Your task to perform on an android device: What's the weather? Image 0: 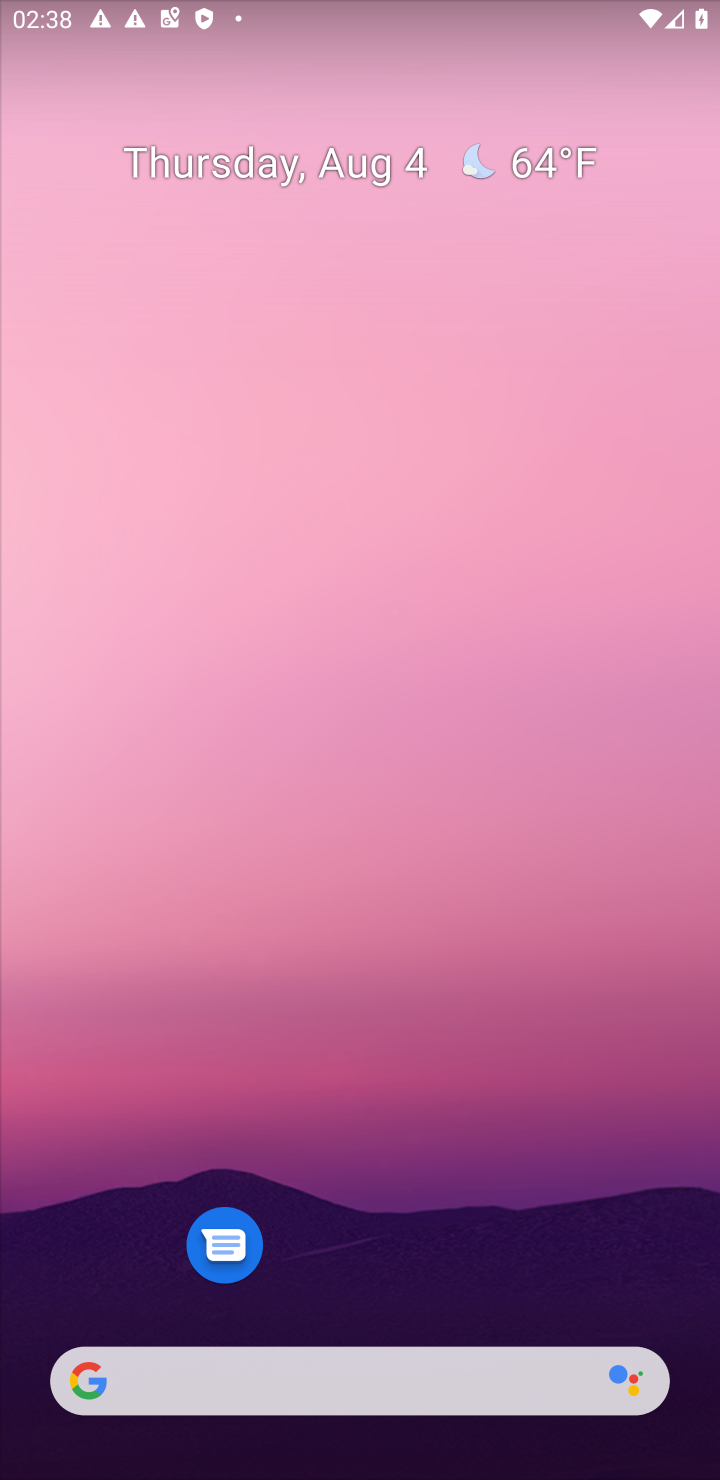
Step 0: drag from (482, 806) to (480, 238)
Your task to perform on an android device: What's the weather? Image 1: 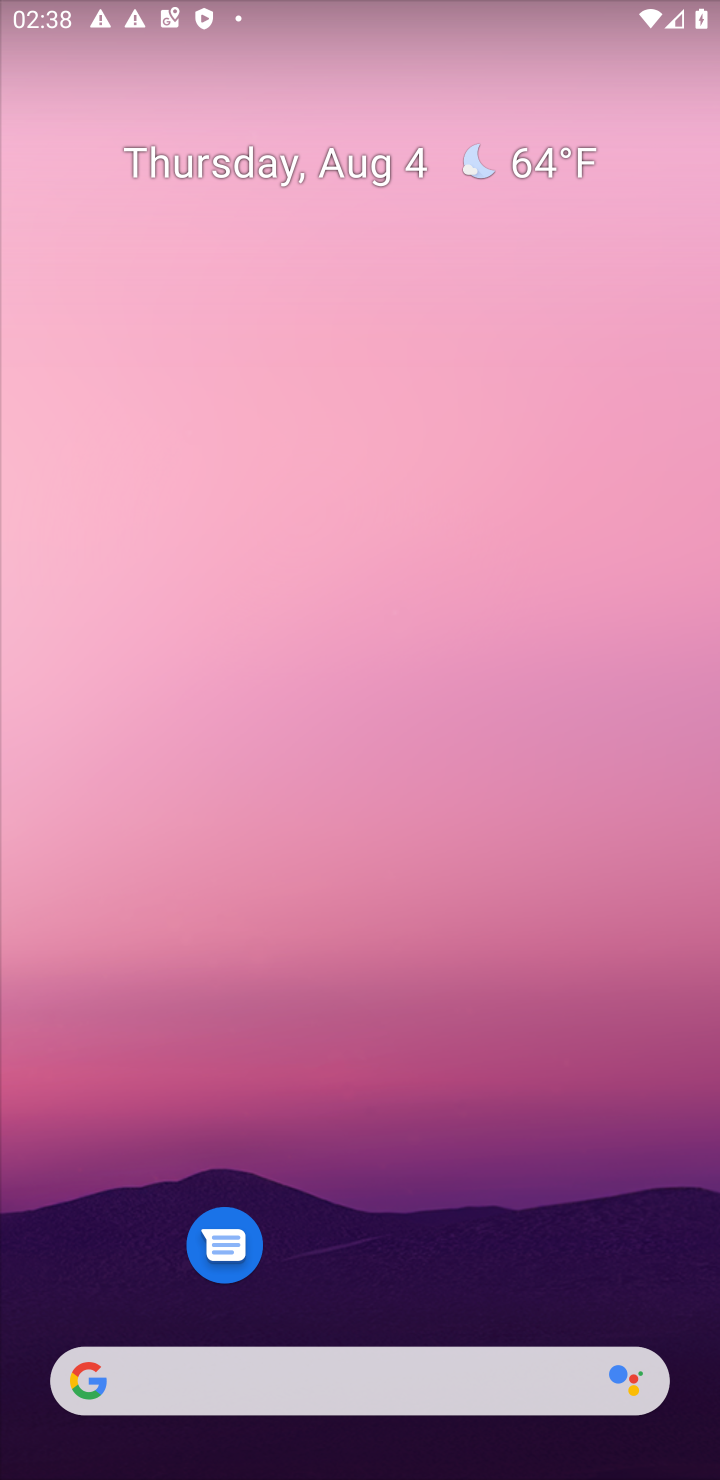
Step 1: drag from (408, 906) to (488, 131)
Your task to perform on an android device: What's the weather? Image 2: 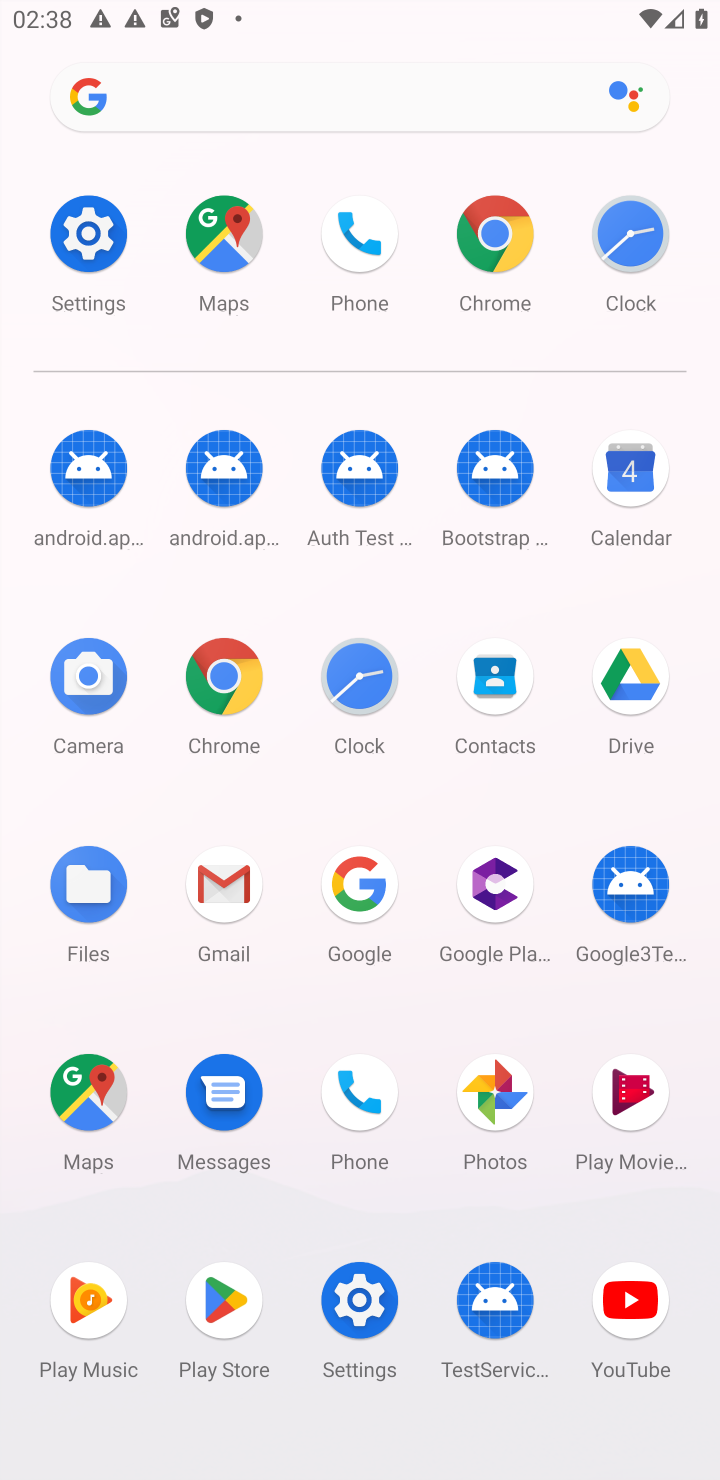
Step 2: click (469, 86)
Your task to perform on an android device: What's the weather? Image 3: 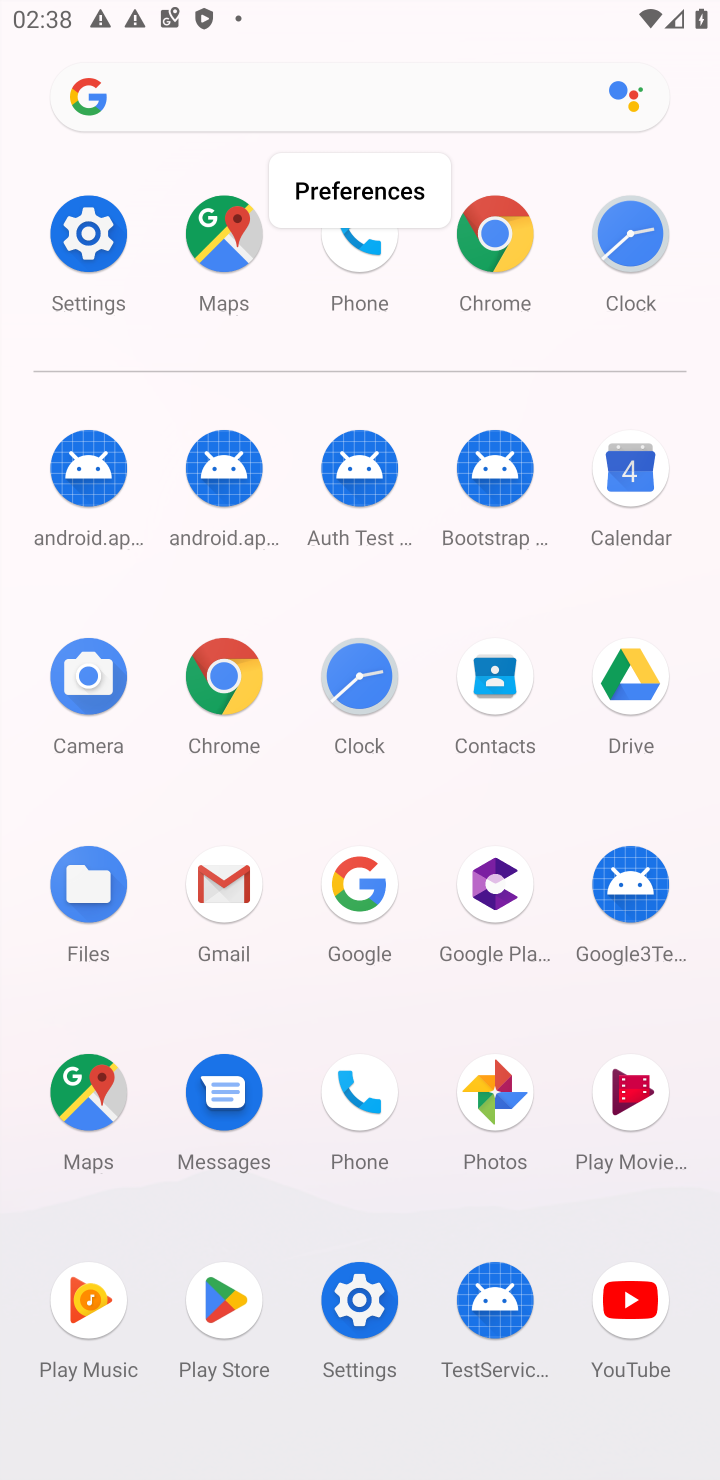
Step 3: click (247, 679)
Your task to perform on an android device: What's the weather? Image 4: 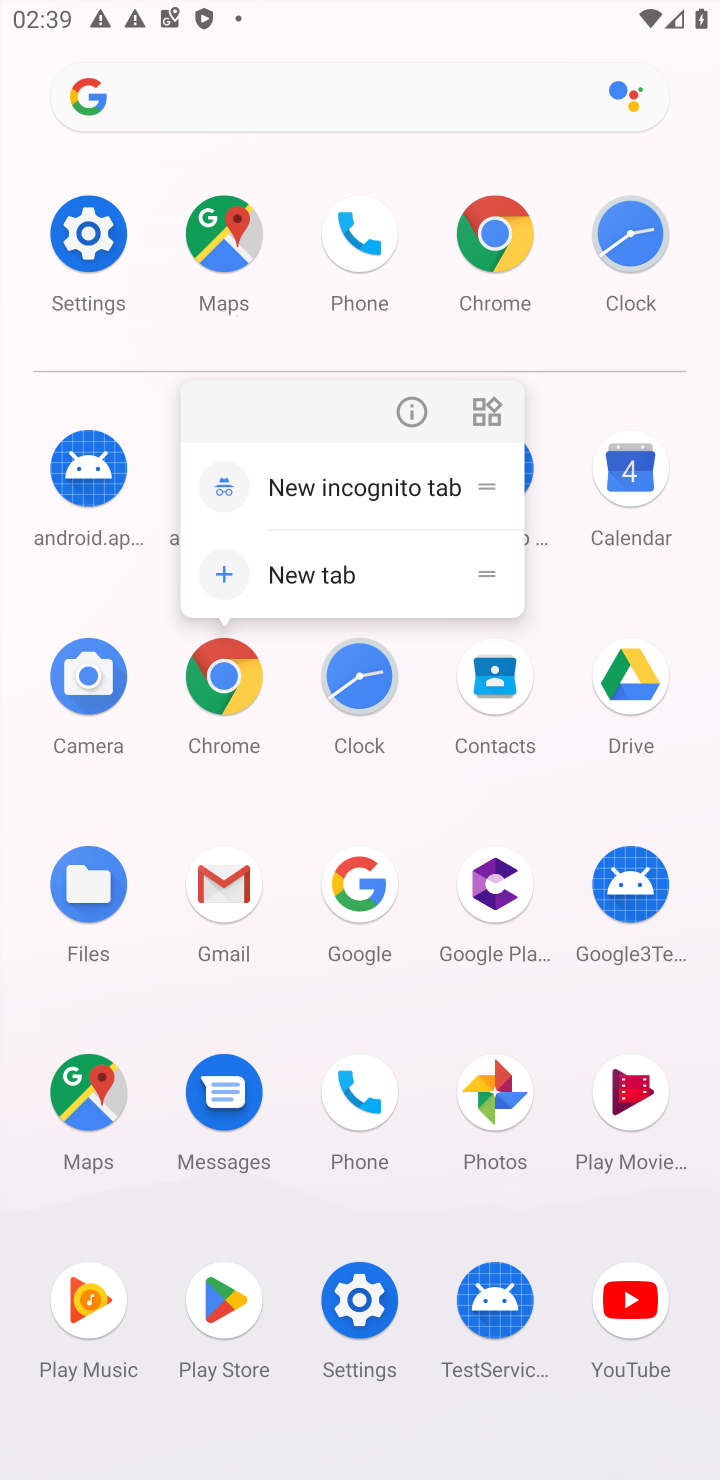
Step 4: click (226, 708)
Your task to perform on an android device: What's the weather? Image 5: 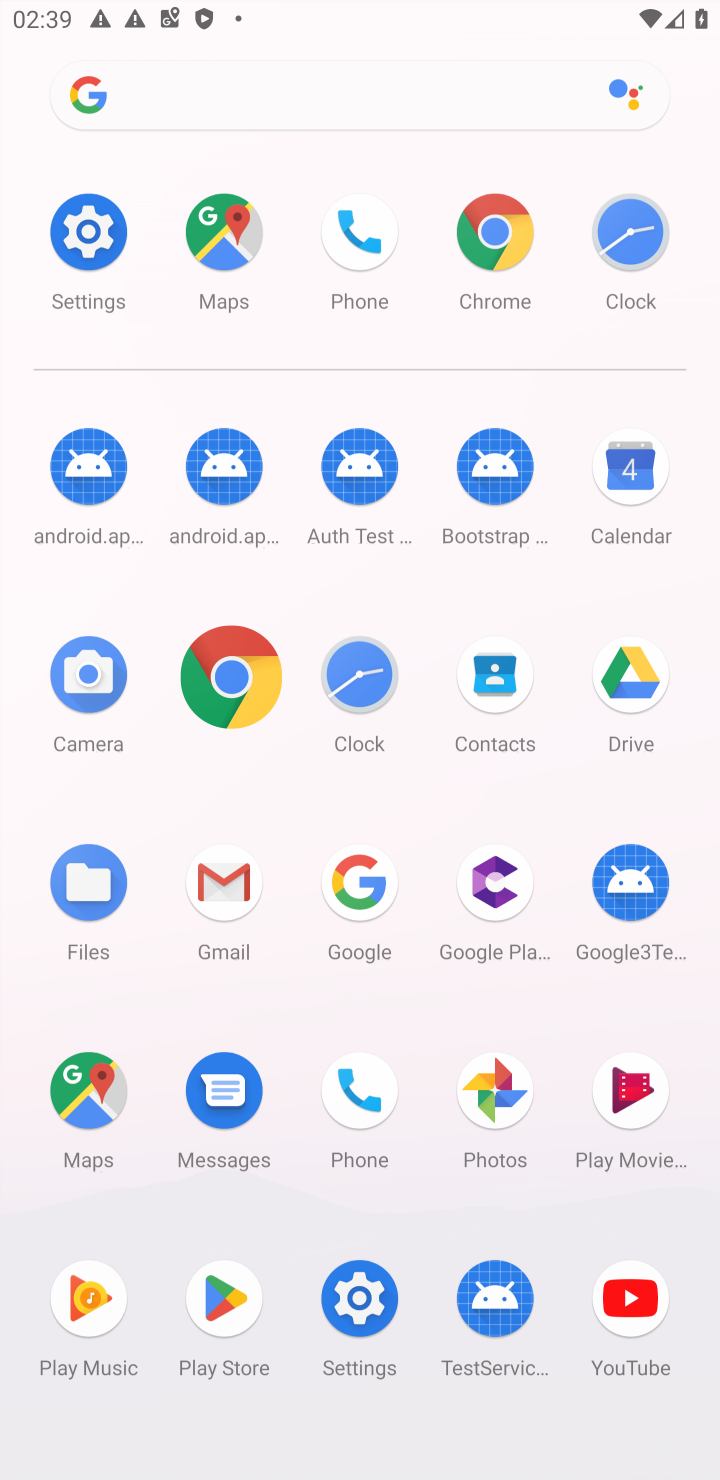
Step 5: click (234, 696)
Your task to perform on an android device: What's the weather? Image 6: 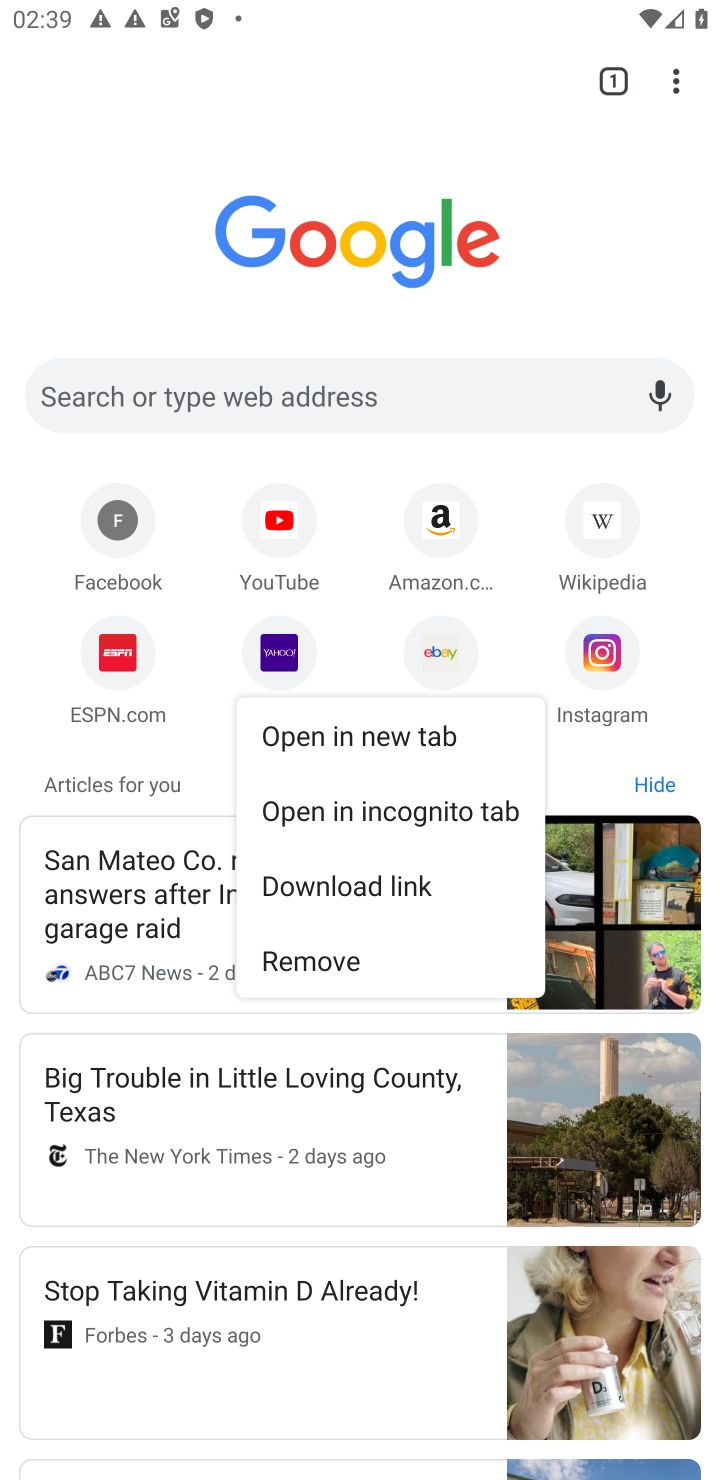
Step 6: click (477, 407)
Your task to perform on an android device: What's the weather? Image 7: 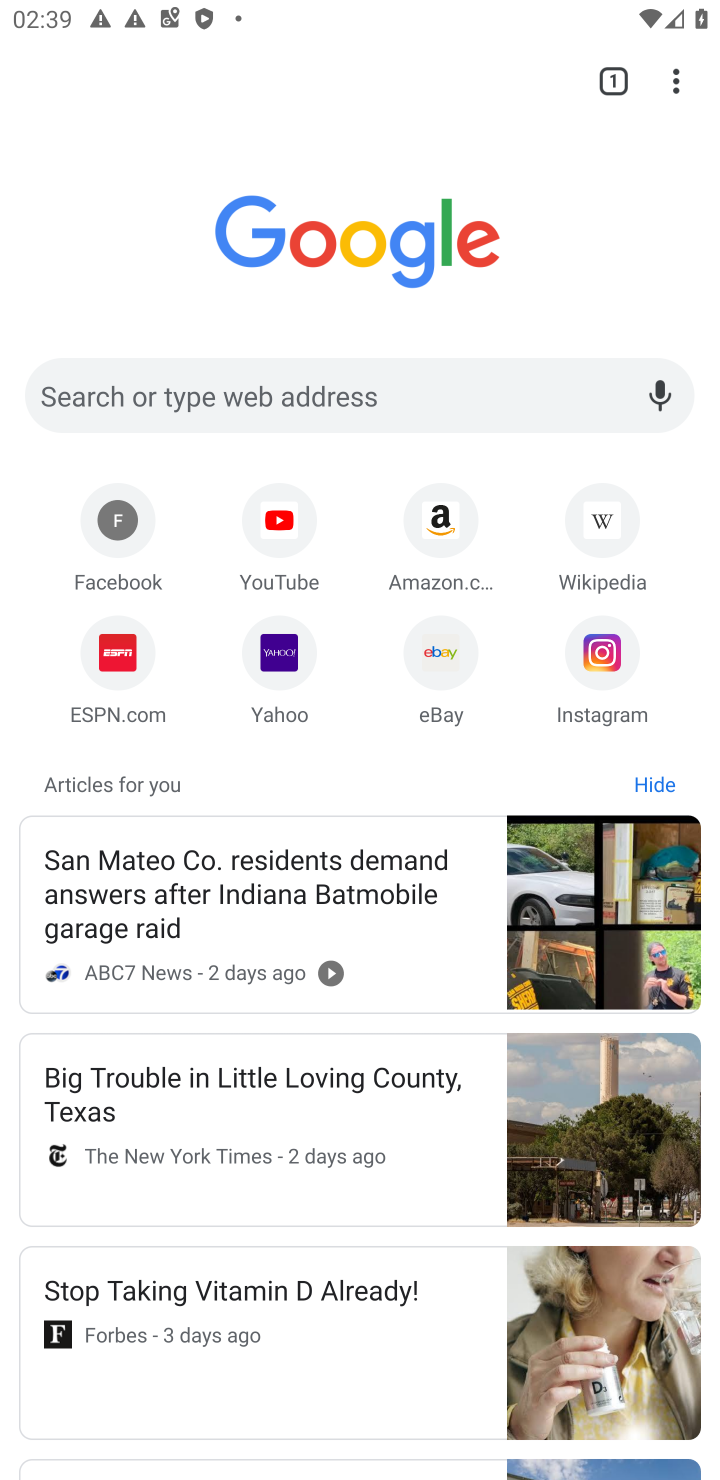
Step 7: type "What's the weather? "
Your task to perform on an android device: What's the weather? Image 8: 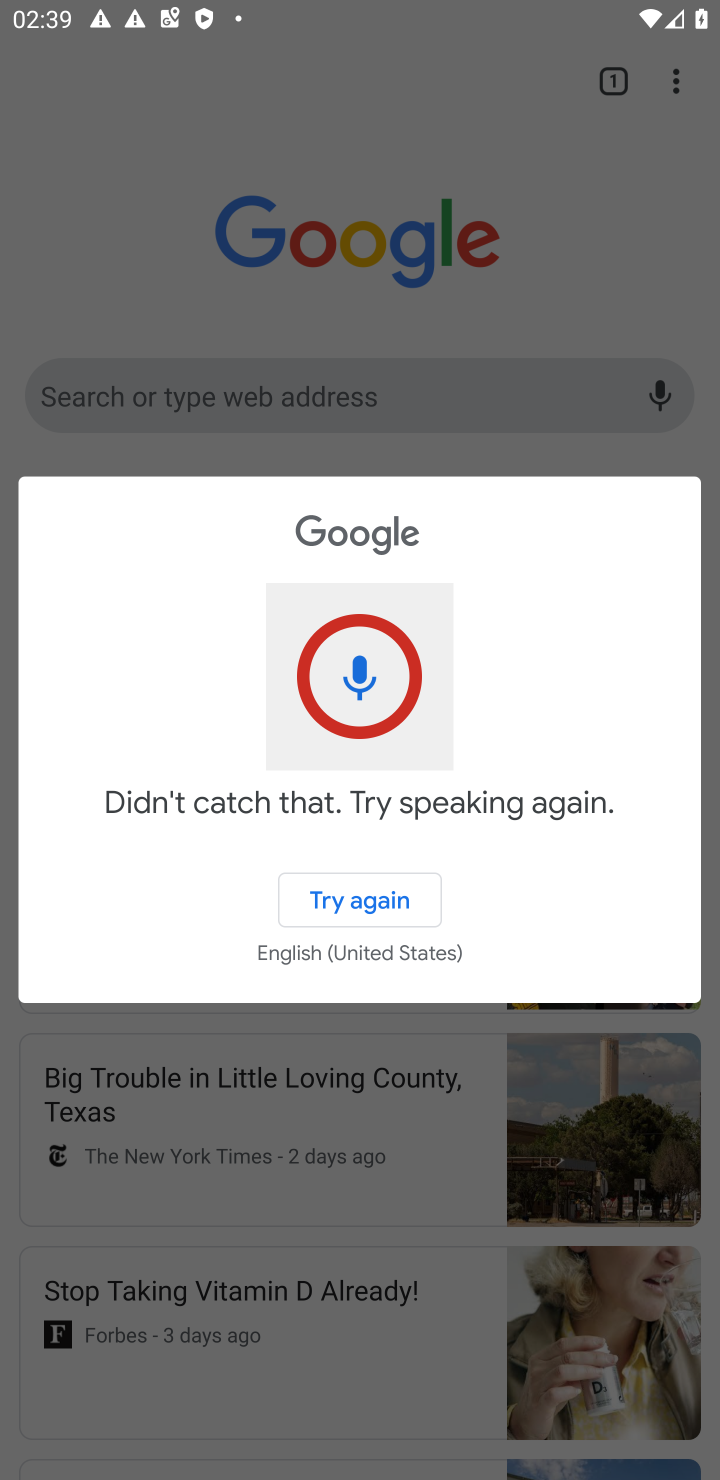
Step 8: click (333, 357)
Your task to perform on an android device: What's the weather? Image 9: 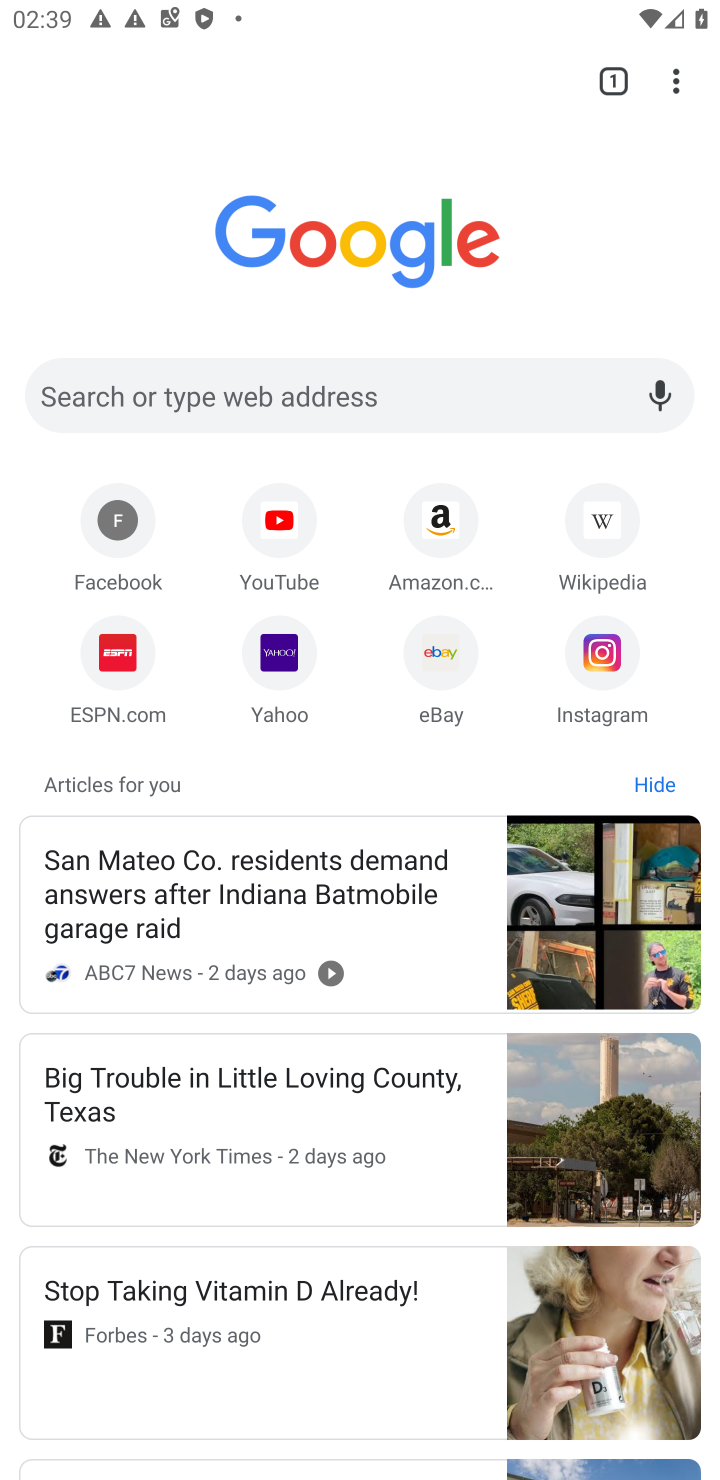
Step 9: click (330, 393)
Your task to perform on an android device: What's the weather? Image 10: 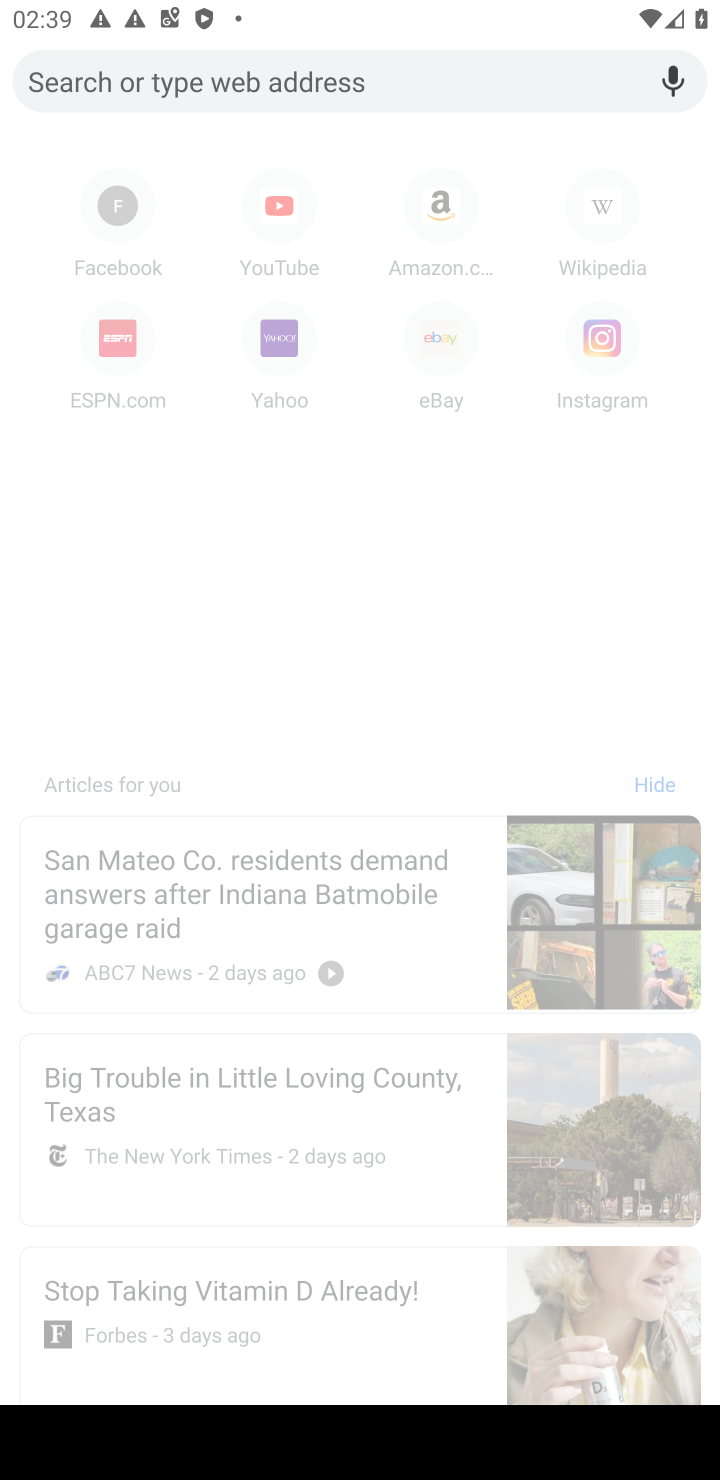
Step 10: type "What's the weather? "
Your task to perform on an android device: What's the weather? Image 11: 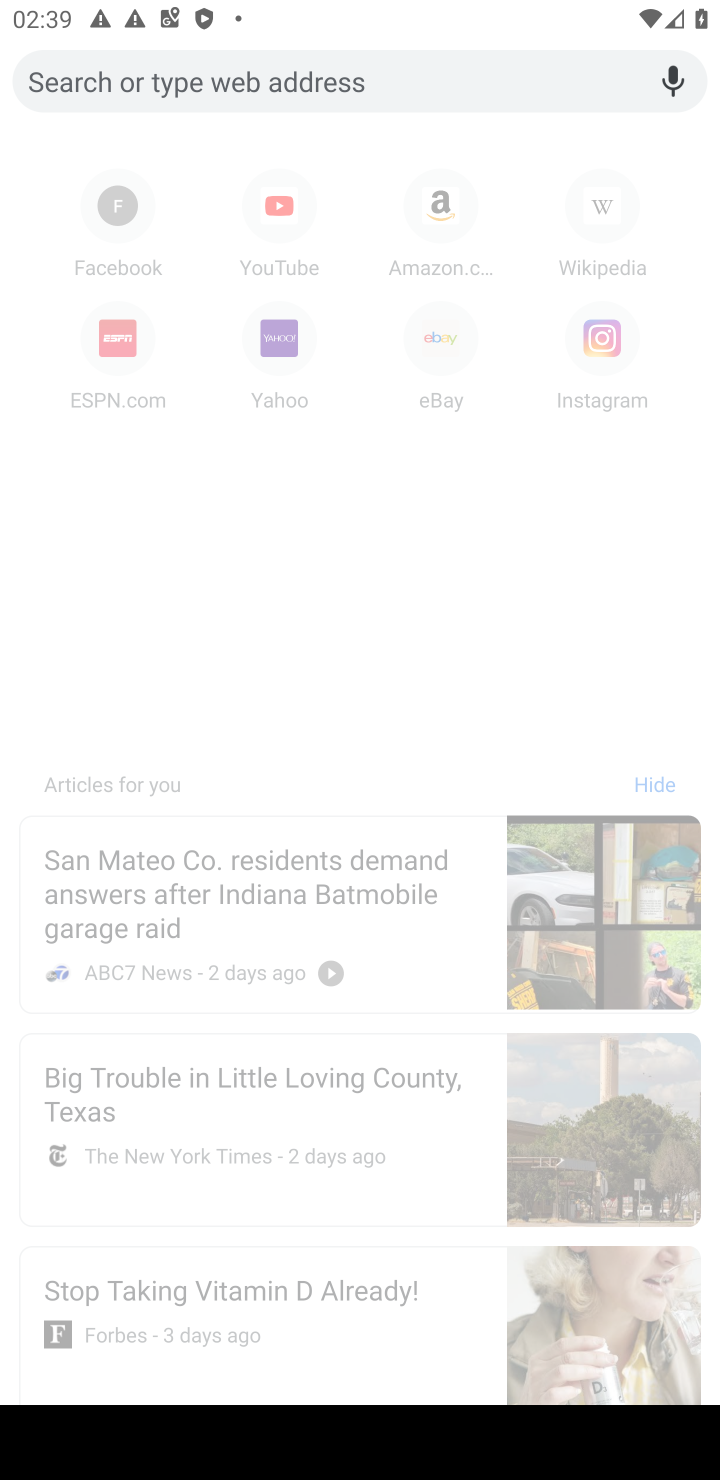
Step 11: click (306, 78)
Your task to perform on an android device: What's the weather? Image 12: 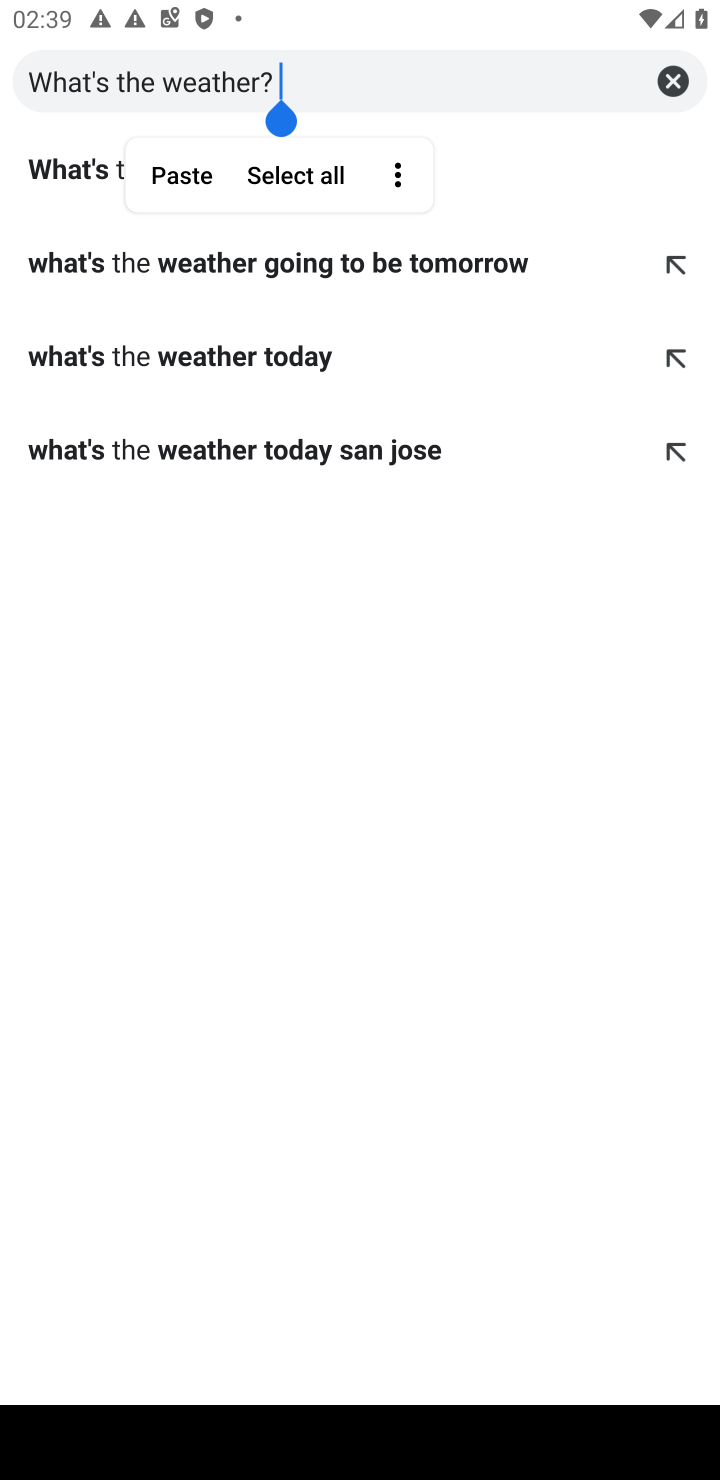
Step 12: click (41, 165)
Your task to perform on an android device: What's the weather? Image 13: 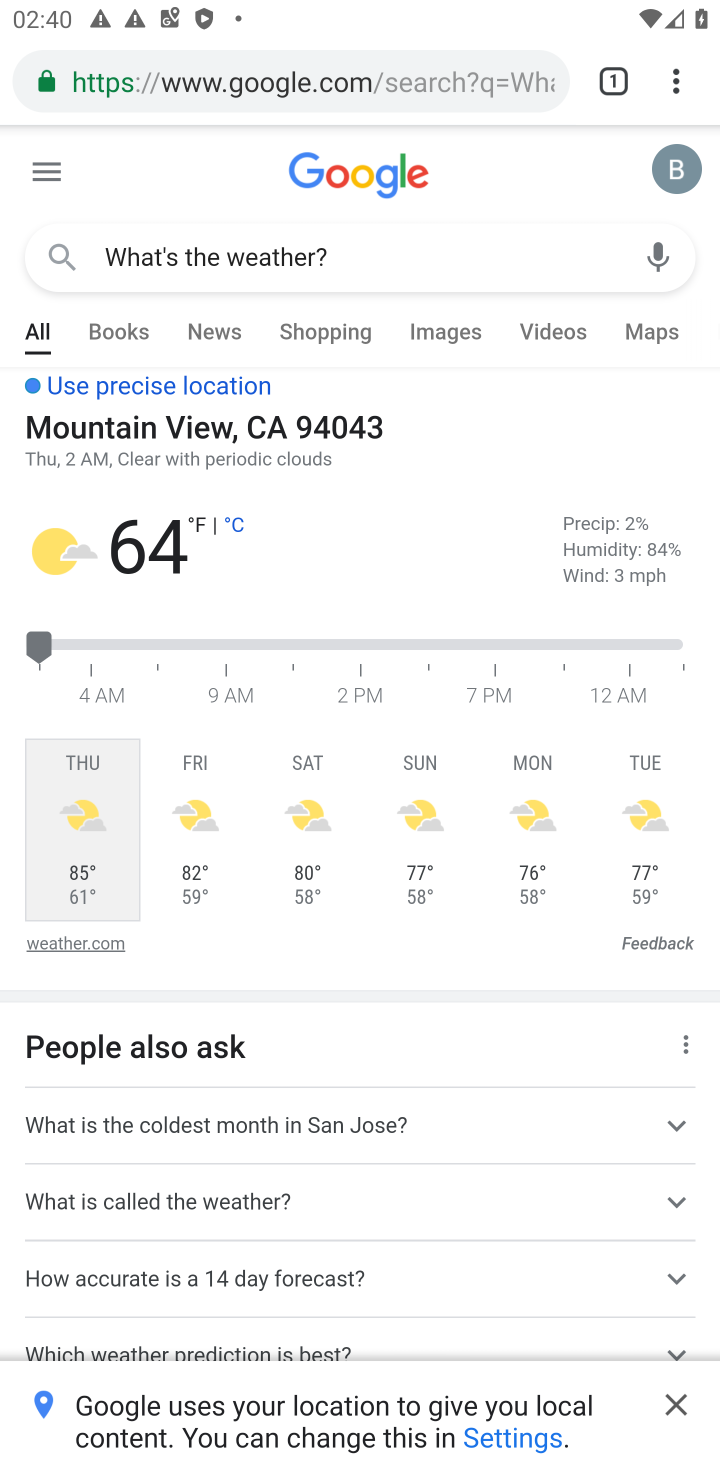
Step 13: task complete